Your task to perform on an android device: change text size in settings app Image 0: 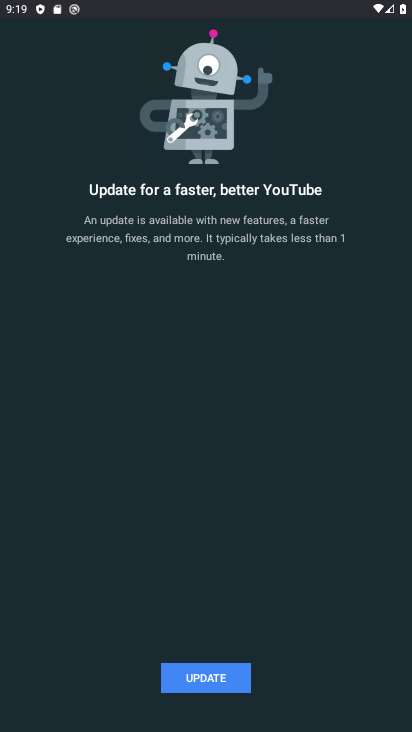
Step 0: press back button
Your task to perform on an android device: change text size in settings app Image 1: 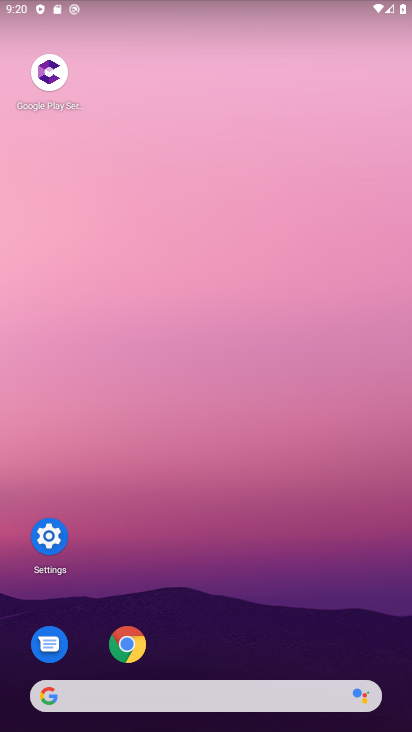
Step 1: click (53, 548)
Your task to perform on an android device: change text size in settings app Image 2: 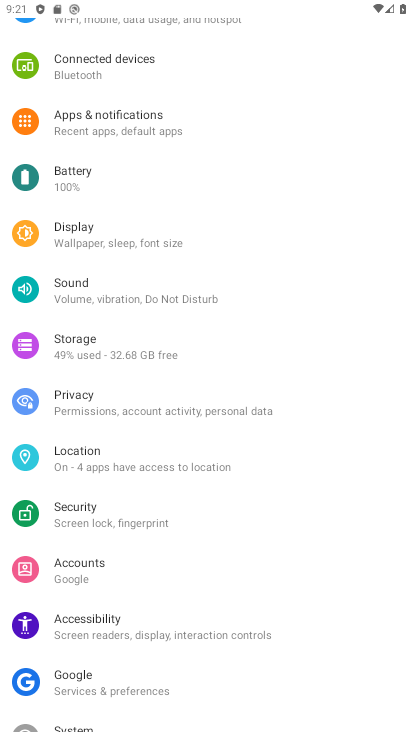
Step 2: click (72, 233)
Your task to perform on an android device: change text size in settings app Image 3: 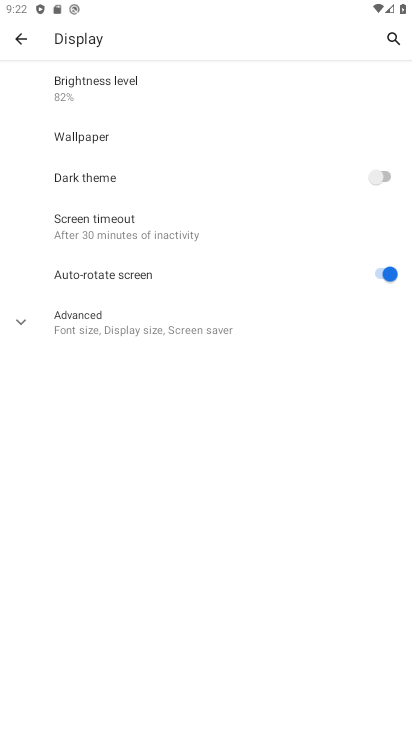
Step 3: click (28, 324)
Your task to perform on an android device: change text size in settings app Image 4: 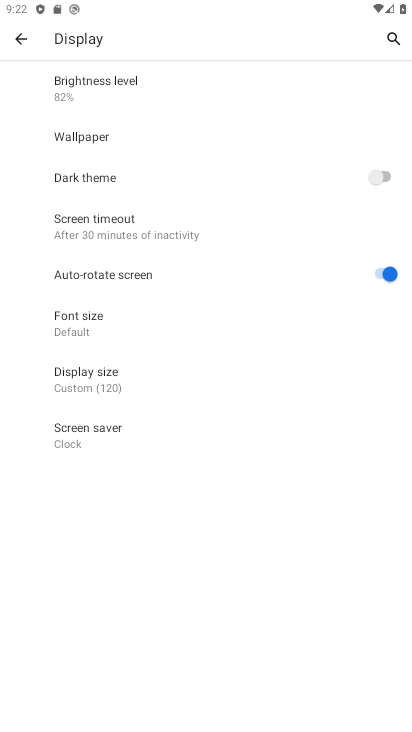
Step 4: click (82, 321)
Your task to perform on an android device: change text size in settings app Image 5: 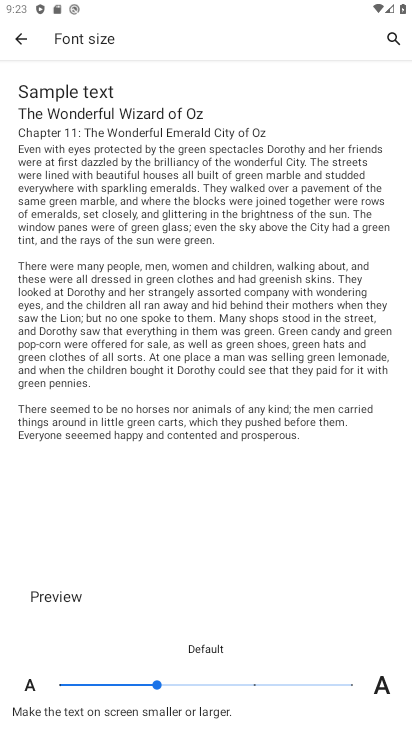
Step 5: click (187, 686)
Your task to perform on an android device: change text size in settings app Image 6: 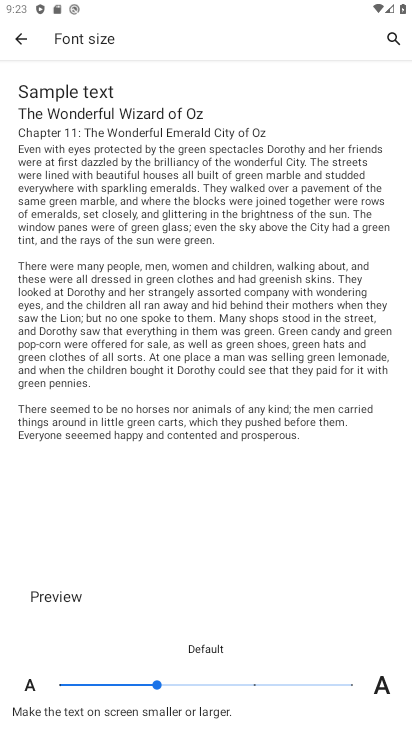
Step 6: task complete